Your task to perform on an android device: set an alarm Image 0: 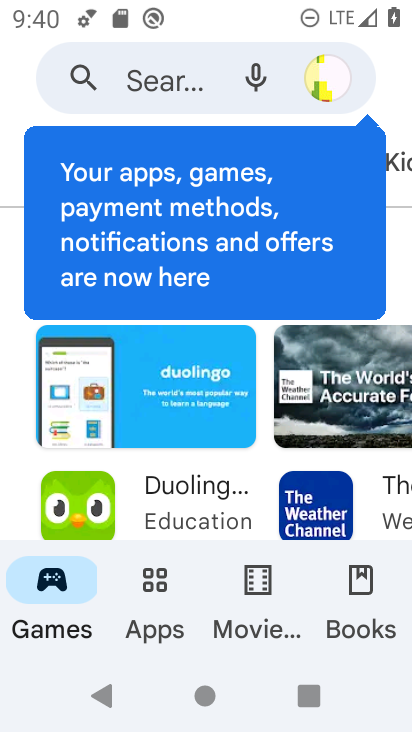
Step 0: press home button
Your task to perform on an android device: set an alarm Image 1: 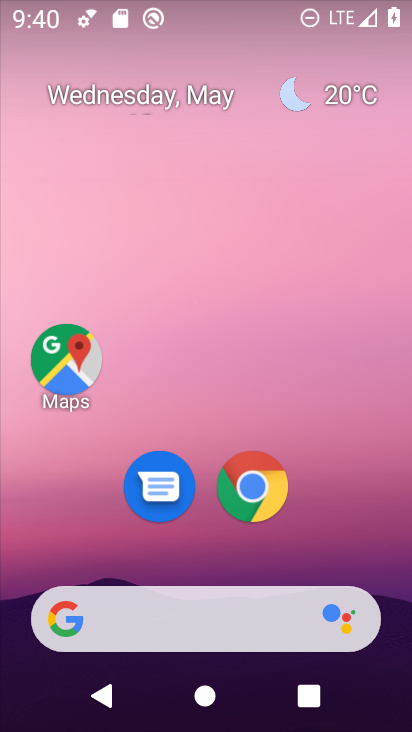
Step 1: drag from (389, 611) to (351, 200)
Your task to perform on an android device: set an alarm Image 2: 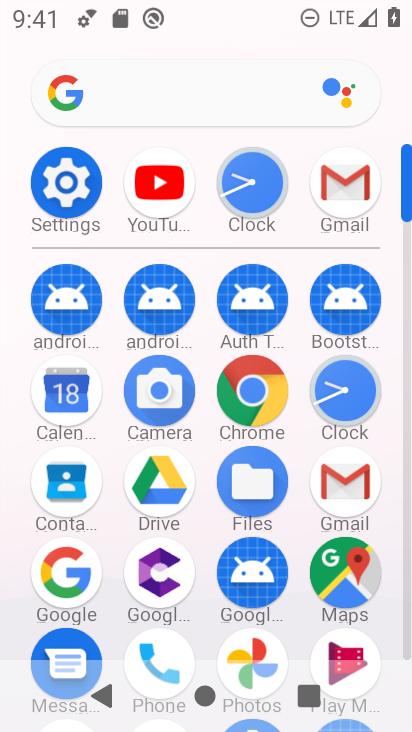
Step 2: click (347, 393)
Your task to perform on an android device: set an alarm Image 3: 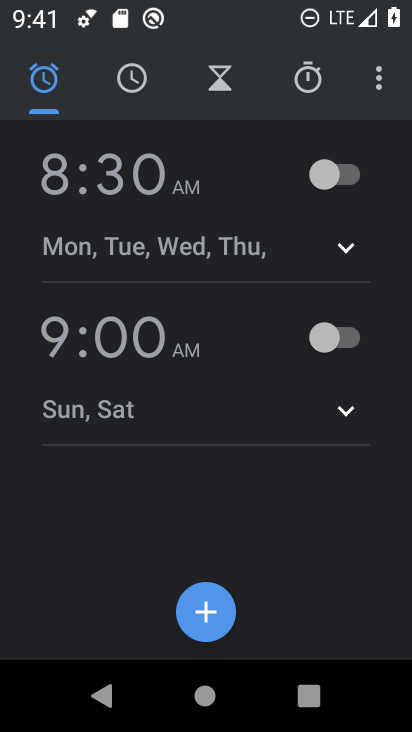
Step 3: click (53, 204)
Your task to perform on an android device: set an alarm Image 4: 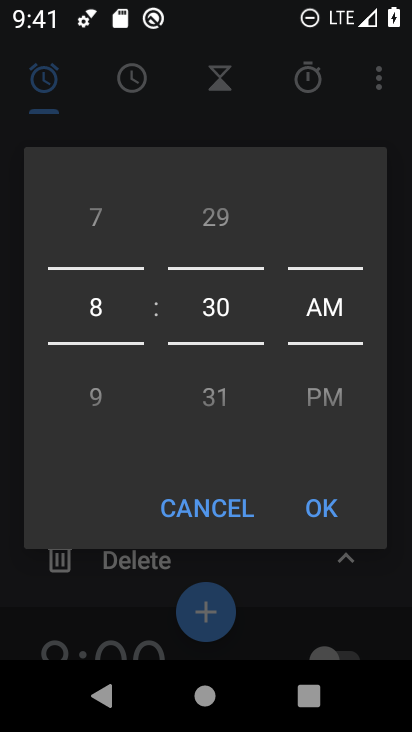
Step 4: drag from (107, 241) to (104, 401)
Your task to perform on an android device: set an alarm Image 5: 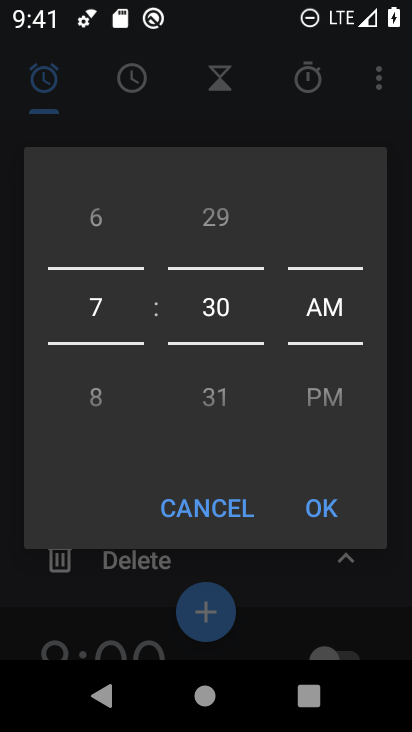
Step 5: drag from (110, 224) to (95, 400)
Your task to perform on an android device: set an alarm Image 6: 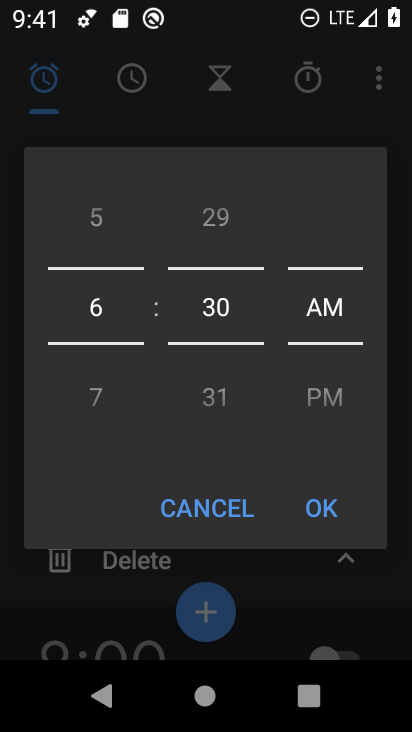
Step 6: drag from (114, 239) to (105, 382)
Your task to perform on an android device: set an alarm Image 7: 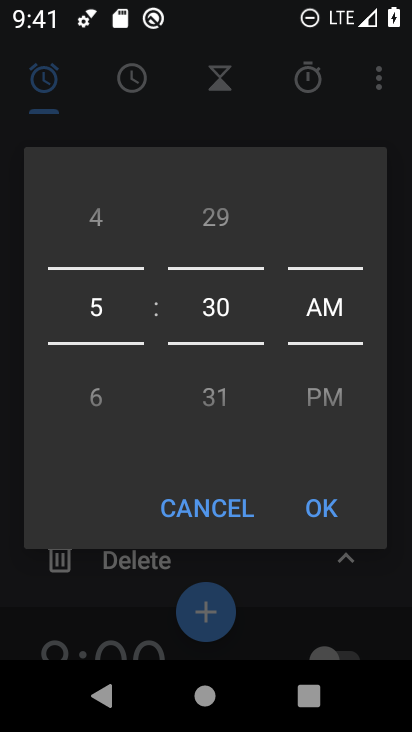
Step 7: click (323, 514)
Your task to perform on an android device: set an alarm Image 8: 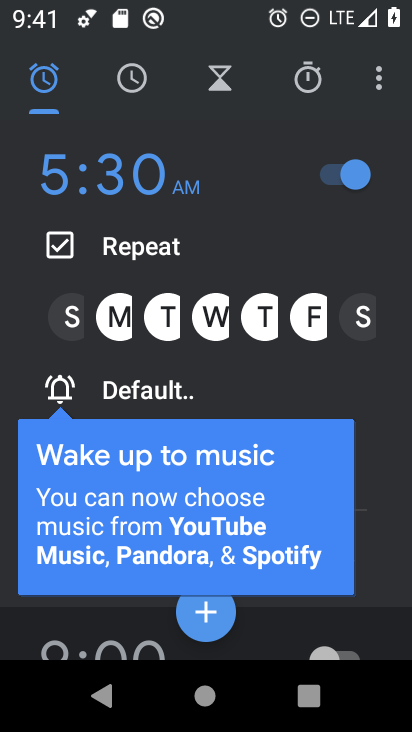
Step 8: click (361, 316)
Your task to perform on an android device: set an alarm Image 9: 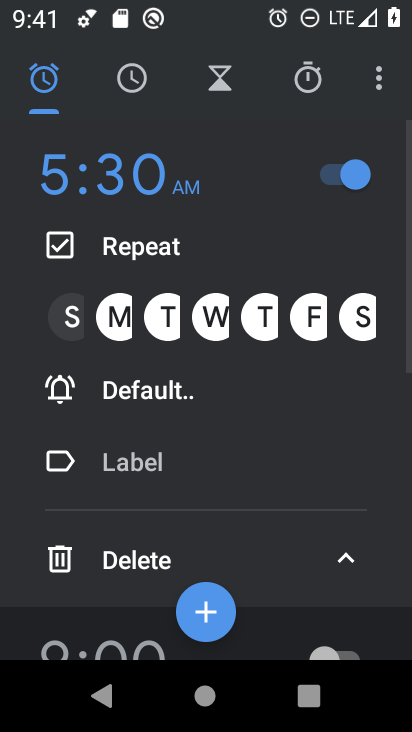
Step 9: click (346, 551)
Your task to perform on an android device: set an alarm Image 10: 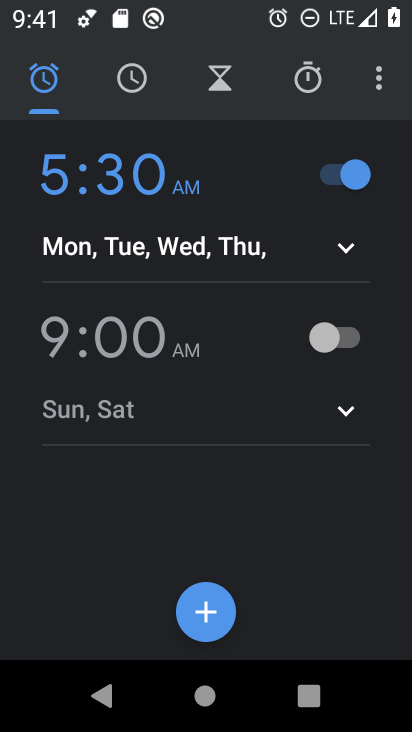
Step 10: task complete